Your task to perform on an android device: See recent photos Image 0: 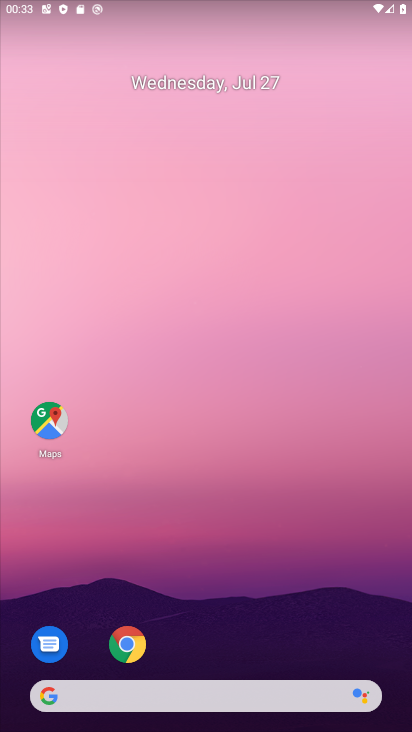
Step 0: drag from (254, 617) to (197, 489)
Your task to perform on an android device: See recent photos Image 1: 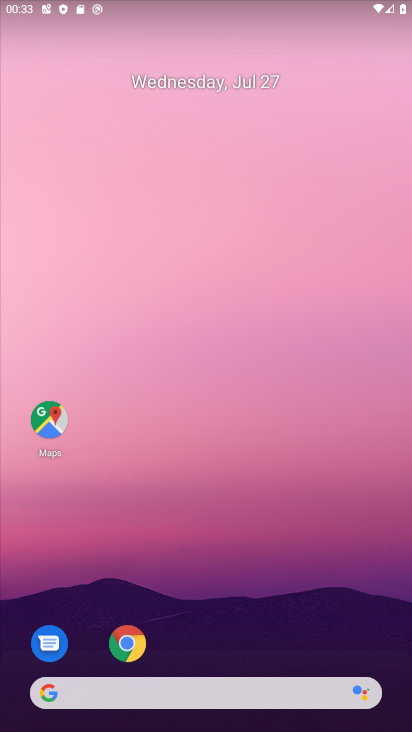
Step 1: drag from (162, 625) to (157, 277)
Your task to perform on an android device: See recent photos Image 2: 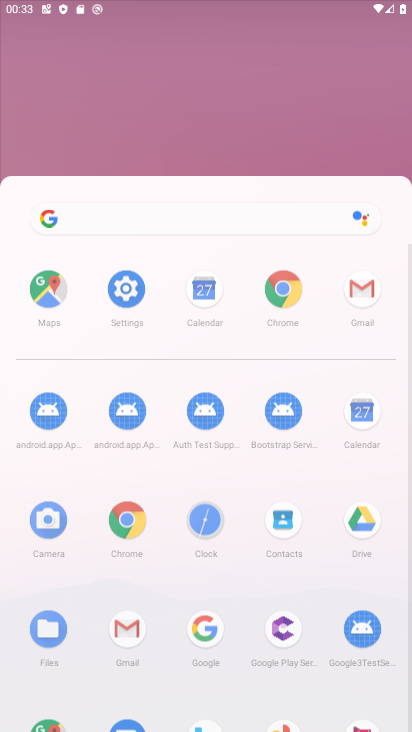
Step 2: drag from (210, 473) to (176, 168)
Your task to perform on an android device: See recent photos Image 3: 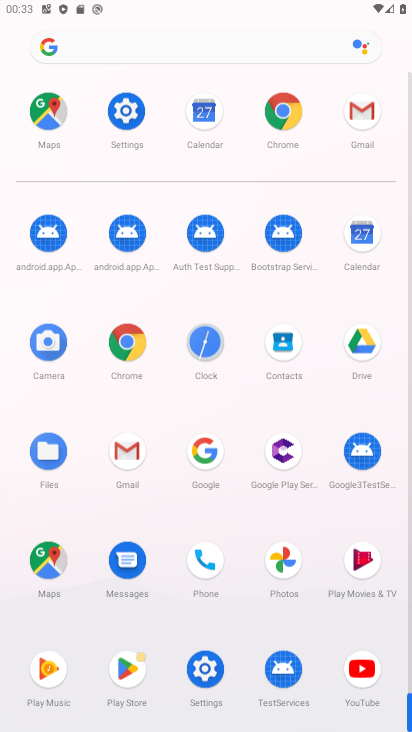
Step 3: drag from (261, 399) to (247, 202)
Your task to perform on an android device: See recent photos Image 4: 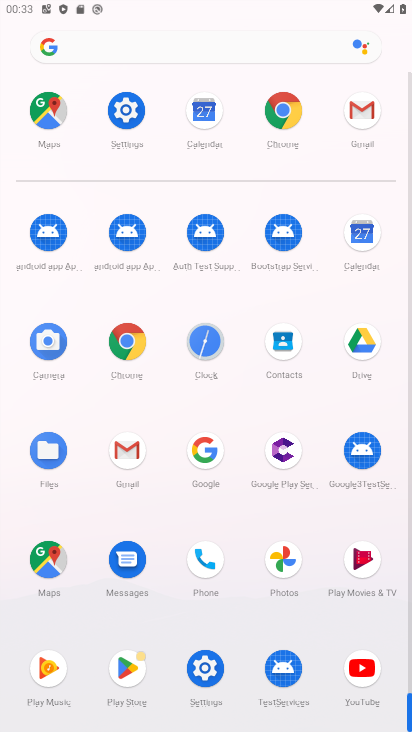
Step 4: click (273, 560)
Your task to perform on an android device: See recent photos Image 5: 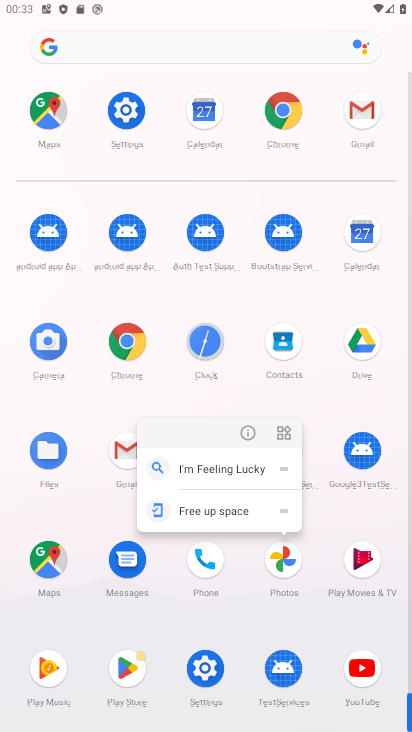
Step 5: click (277, 562)
Your task to perform on an android device: See recent photos Image 6: 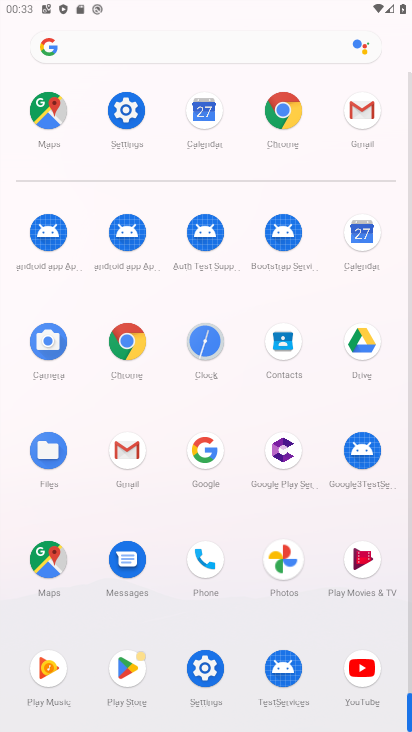
Step 6: click (288, 559)
Your task to perform on an android device: See recent photos Image 7: 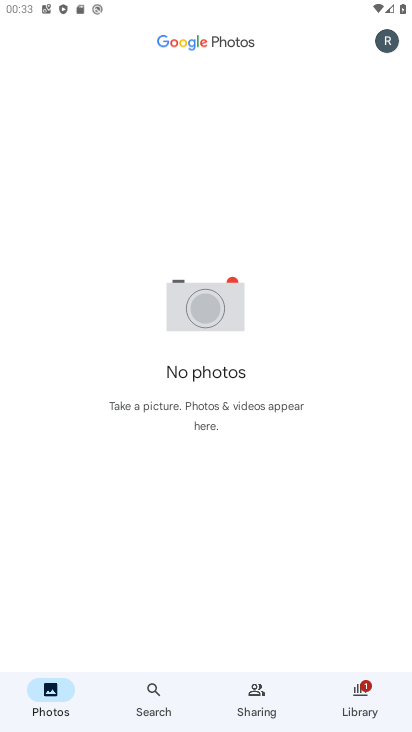
Step 7: task complete